Your task to perform on an android device: turn off location Image 0: 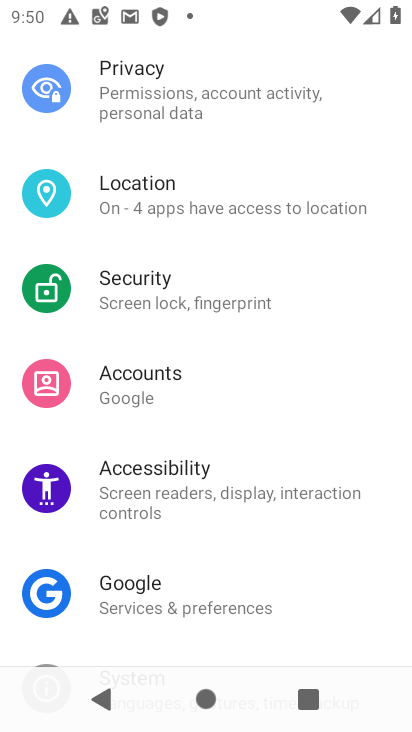
Step 0: click (169, 188)
Your task to perform on an android device: turn off location Image 1: 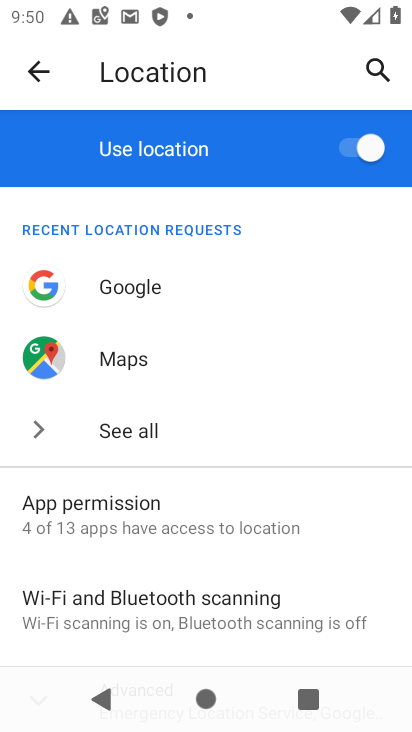
Step 1: click (359, 155)
Your task to perform on an android device: turn off location Image 2: 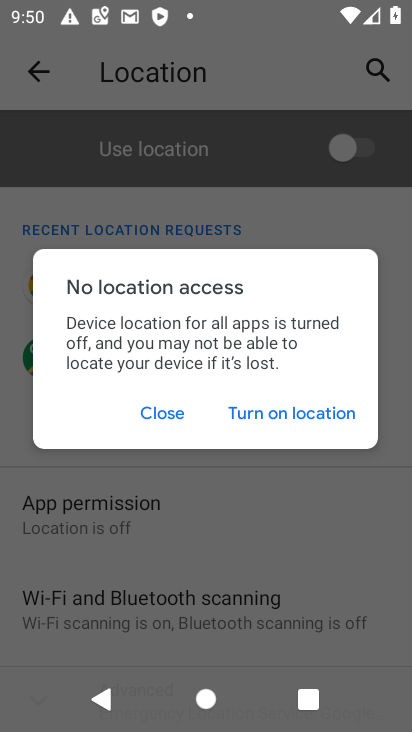
Step 2: task complete